Your task to perform on an android device: Open Google Maps Image 0: 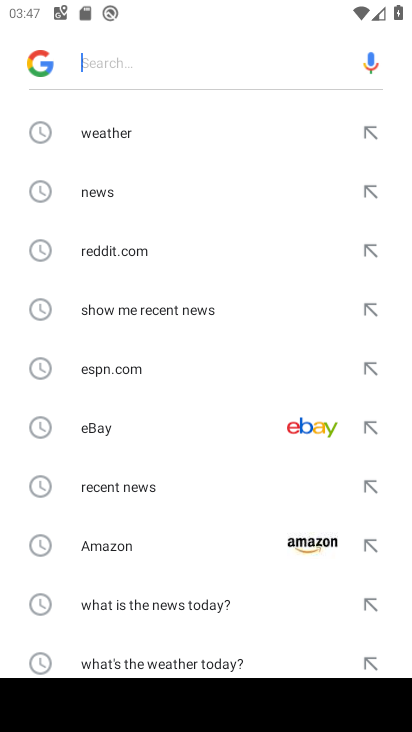
Step 0: press home button
Your task to perform on an android device: Open Google Maps Image 1: 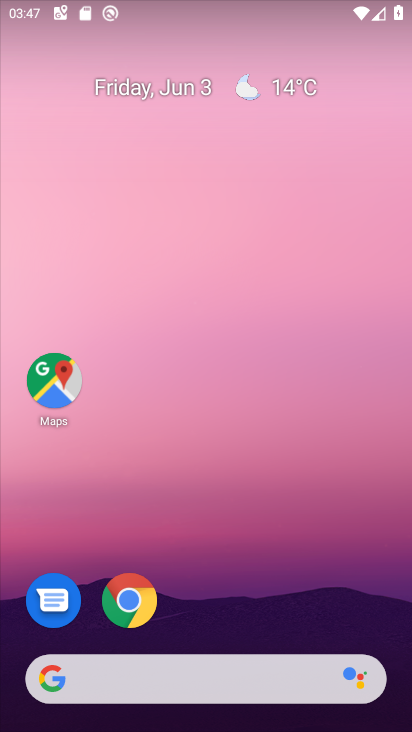
Step 1: click (55, 380)
Your task to perform on an android device: Open Google Maps Image 2: 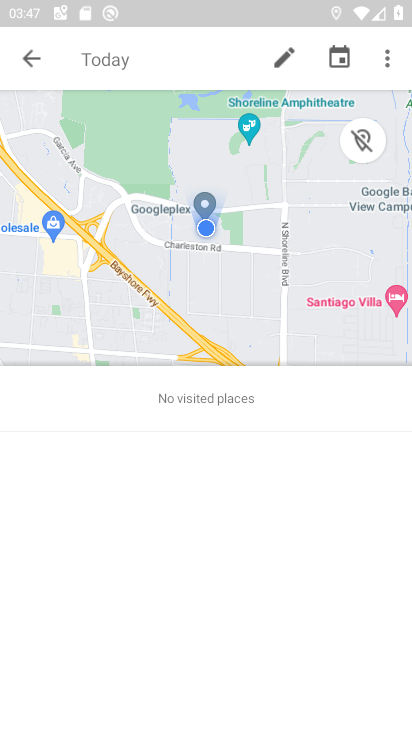
Step 2: task complete